Your task to perform on an android device: What's on my calendar tomorrow? Image 0: 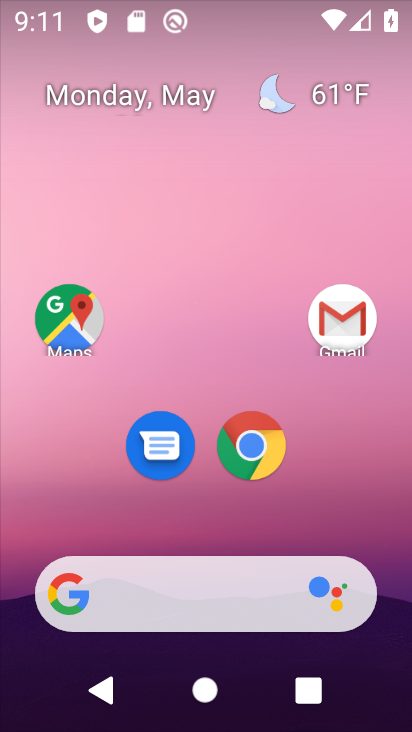
Step 0: drag from (371, 517) to (370, 181)
Your task to perform on an android device: What's on my calendar tomorrow? Image 1: 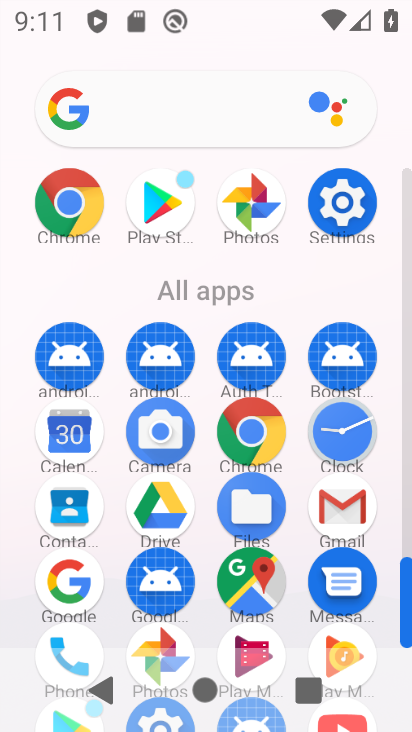
Step 1: click (85, 452)
Your task to perform on an android device: What's on my calendar tomorrow? Image 2: 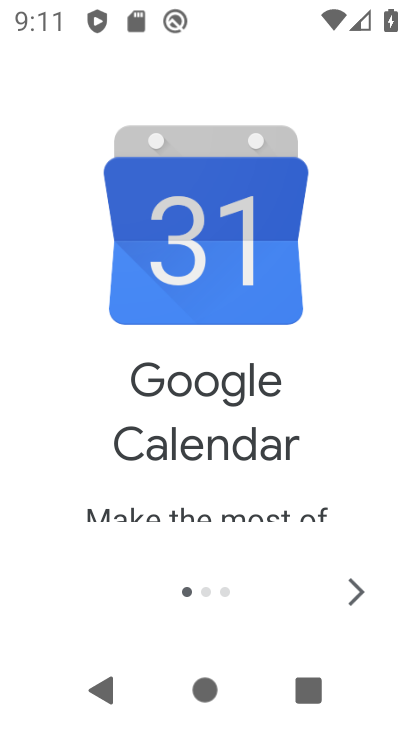
Step 2: click (344, 579)
Your task to perform on an android device: What's on my calendar tomorrow? Image 3: 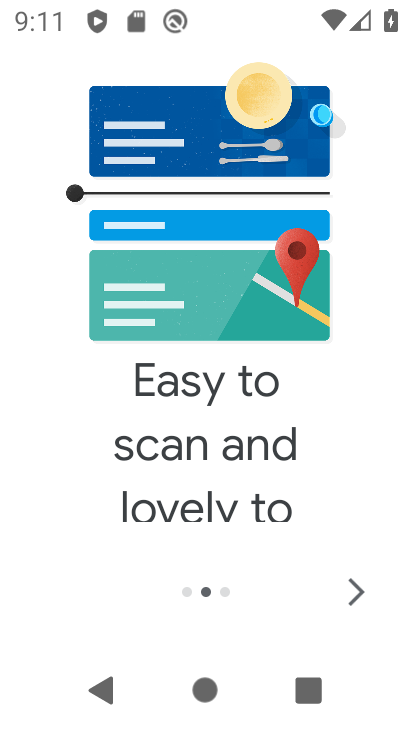
Step 3: click (346, 592)
Your task to perform on an android device: What's on my calendar tomorrow? Image 4: 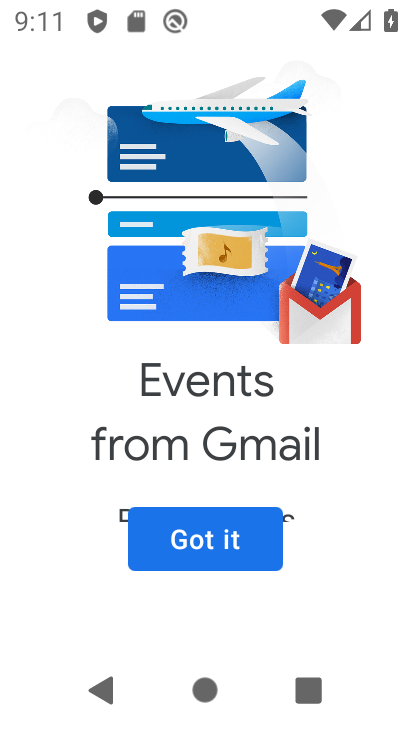
Step 4: click (265, 551)
Your task to perform on an android device: What's on my calendar tomorrow? Image 5: 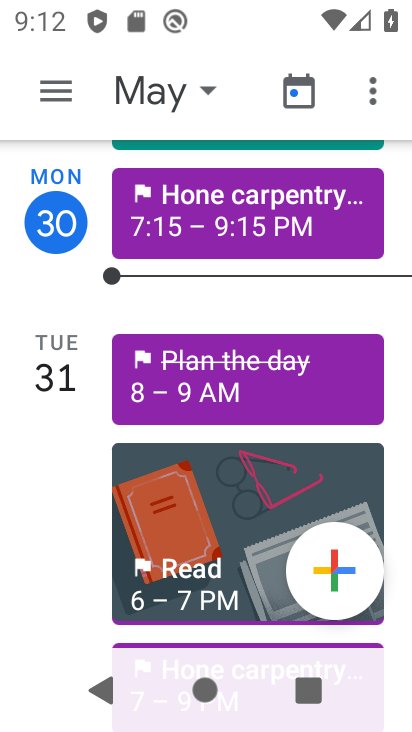
Step 5: drag from (264, 499) to (269, 322)
Your task to perform on an android device: What's on my calendar tomorrow? Image 6: 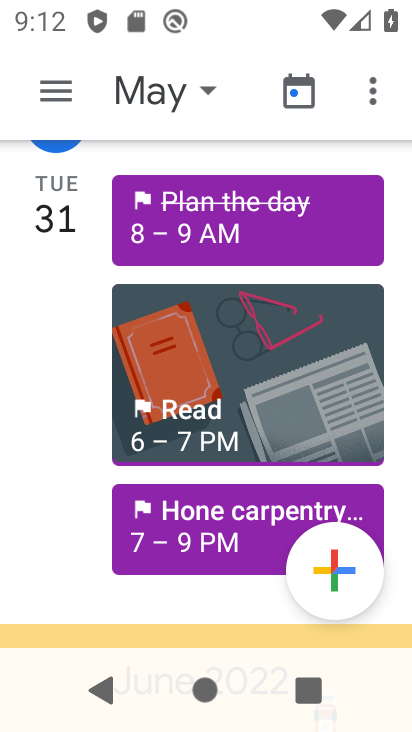
Step 6: drag from (151, 544) to (161, 326)
Your task to perform on an android device: What's on my calendar tomorrow? Image 7: 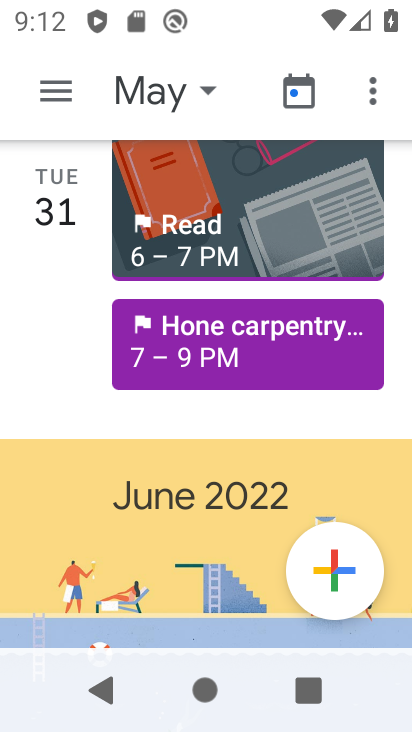
Step 7: drag from (225, 586) to (233, 351)
Your task to perform on an android device: What's on my calendar tomorrow? Image 8: 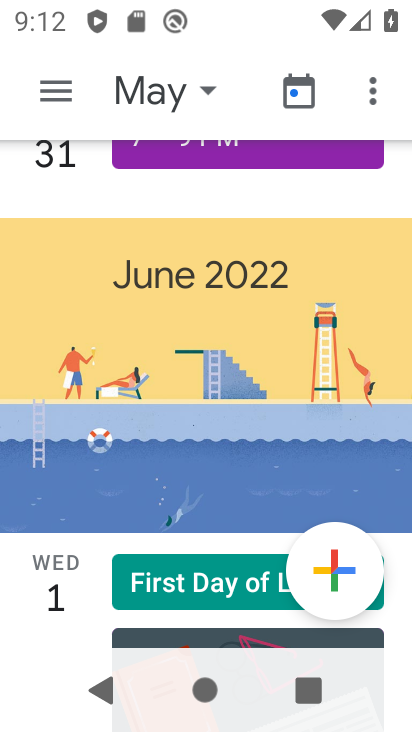
Step 8: drag from (240, 575) to (258, 240)
Your task to perform on an android device: What's on my calendar tomorrow? Image 9: 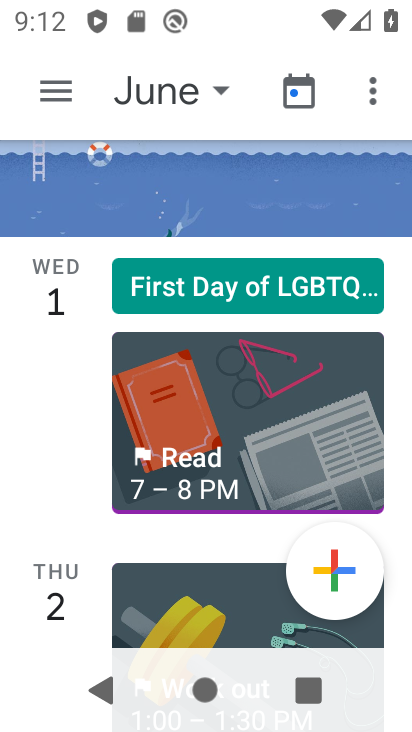
Step 9: click (266, 430)
Your task to perform on an android device: What's on my calendar tomorrow? Image 10: 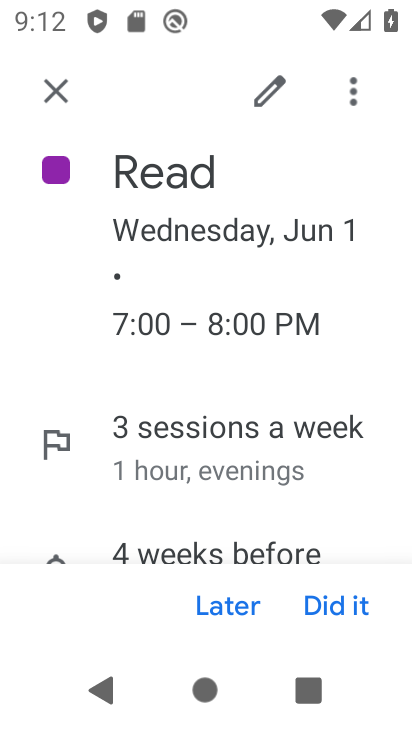
Step 10: task complete